Your task to perform on an android device: Open calendar and show me the third week of next month Image 0: 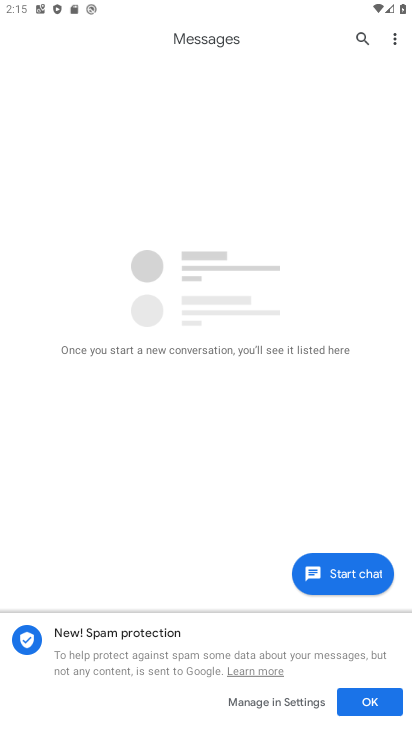
Step 0: press home button
Your task to perform on an android device: Open calendar and show me the third week of next month Image 1: 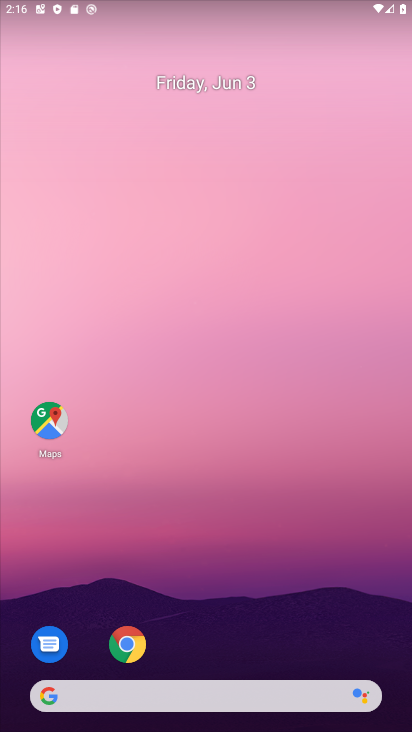
Step 1: drag from (243, 656) to (242, 241)
Your task to perform on an android device: Open calendar and show me the third week of next month Image 2: 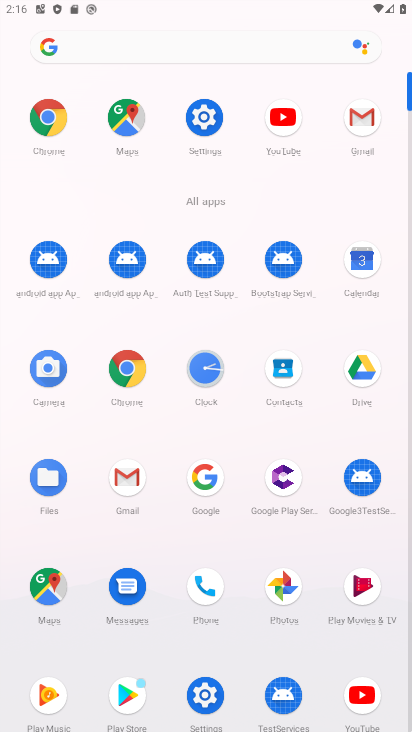
Step 2: click (364, 262)
Your task to perform on an android device: Open calendar and show me the third week of next month Image 3: 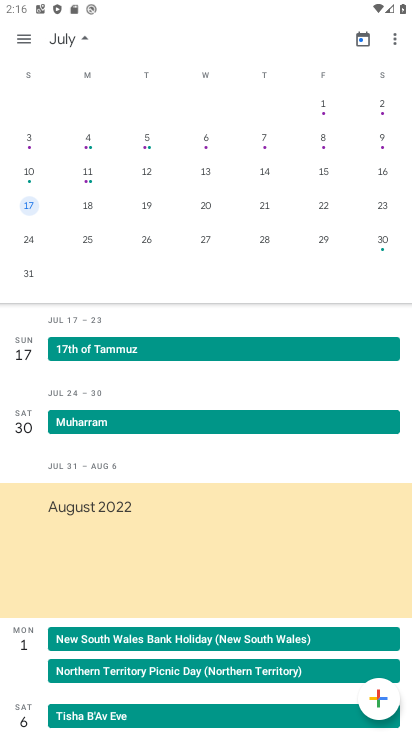
Step 3: click (37, 160)
Your task to perform on an android device: Open calendar and show me the third week of next month Image 4: 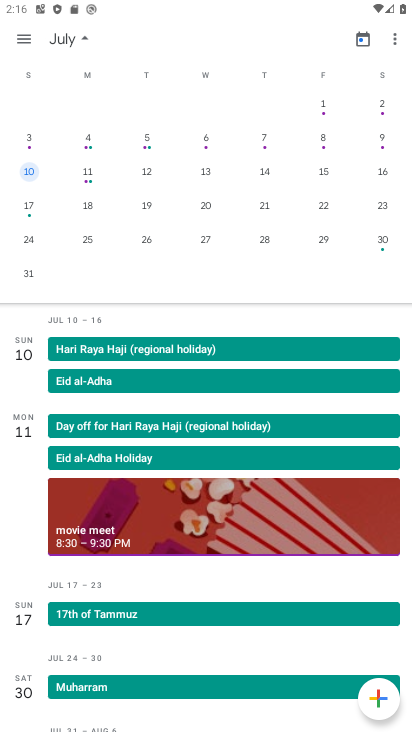
Step 4: task complete